Your task to perform on an android device: open sync settings in chrome Image 0: 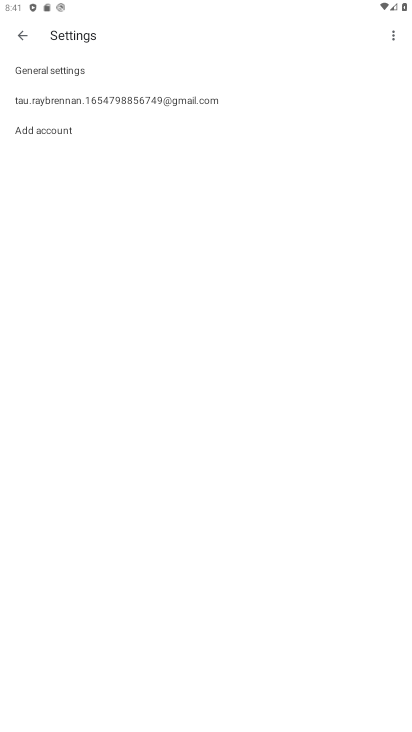
Step 0: press home button
Your task to perform on an android device: open sync settings in chrome Image 1: 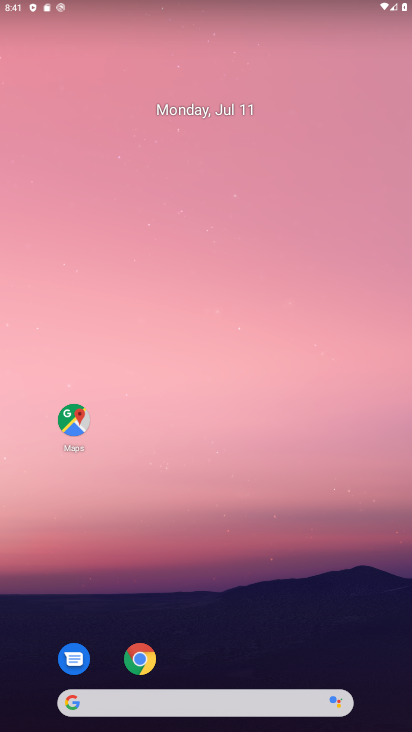
Step 1: drag from (203, 639) to (298, 128)
Your task to perform on an android device: open sync settings in chrome Image 2: 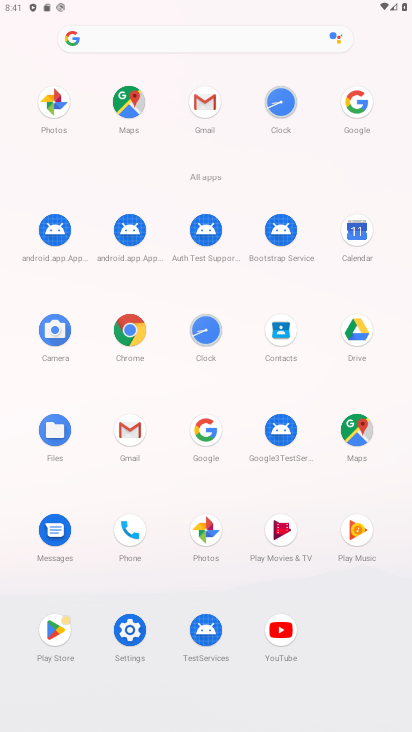
Step 2: click (131, 330)
Your task to perform on an android device: open sync settings in chrome Image 3: 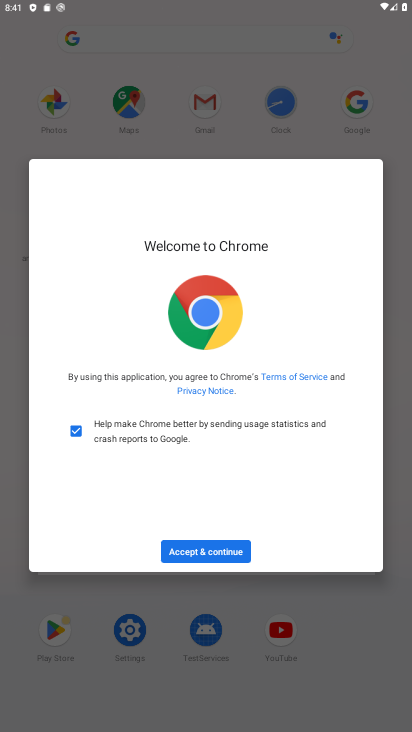
Step 3: click (200, 548)
Your task to perform on an android device: open sync settings in chrome Image 4: 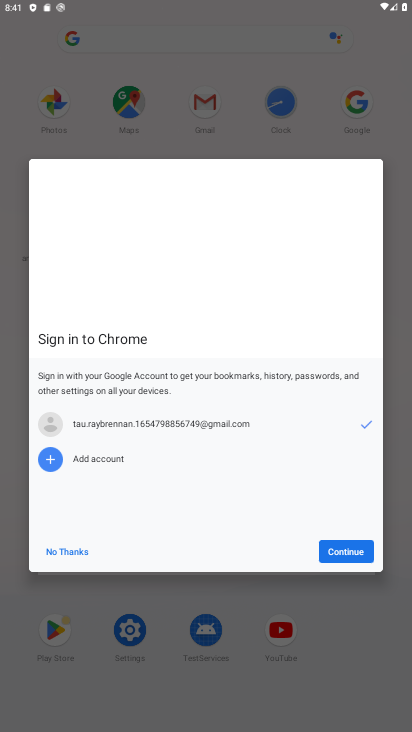
Step 4: click (339, 544)
Your task to perform on an android device: open sync settings in chrome Image 5: 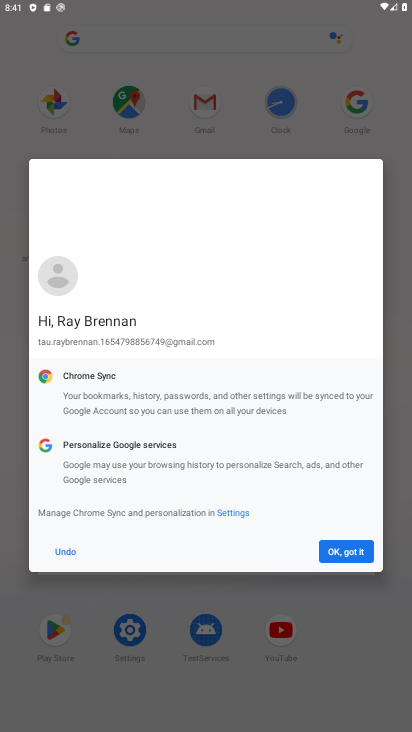
Step 5: click (346, 551)
Your task to perform on an android device: open sync settings in chrome Image 6: 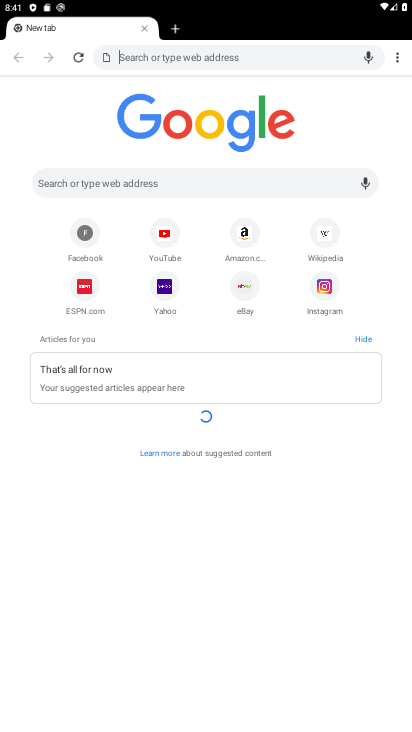
Step 6: drag from (403, 59) to (314, 258)
Your task to perform on an android device: open sync settings in chrome Image 7: 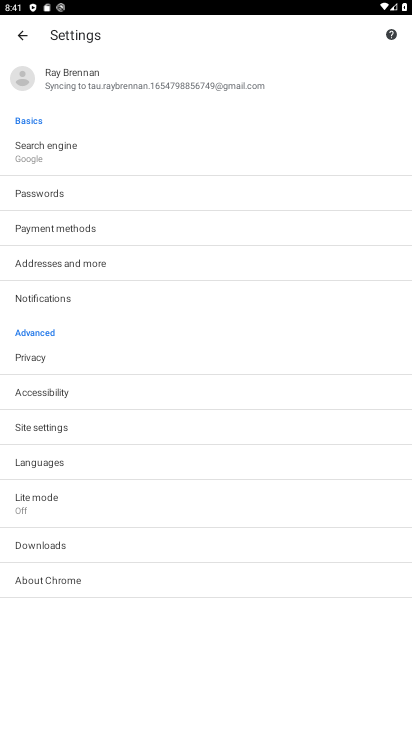
Step 7: click (141, 84)
Your task to perform on an android device: open sync settings in chrome Image 8: 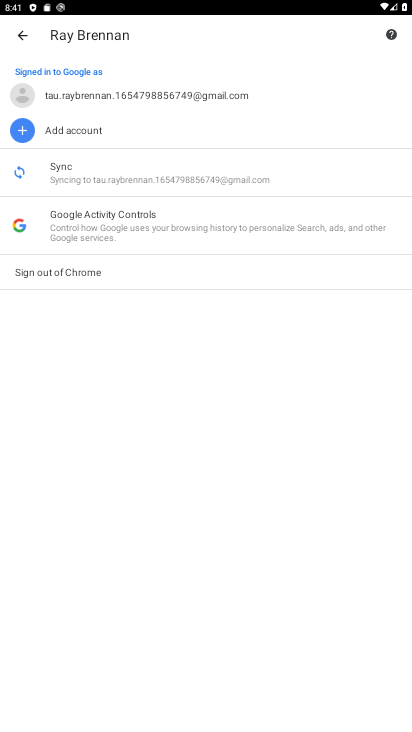
Step 8: click (113, 171)
Your task to perform on an android device: open sync settings in chrome Image 9: 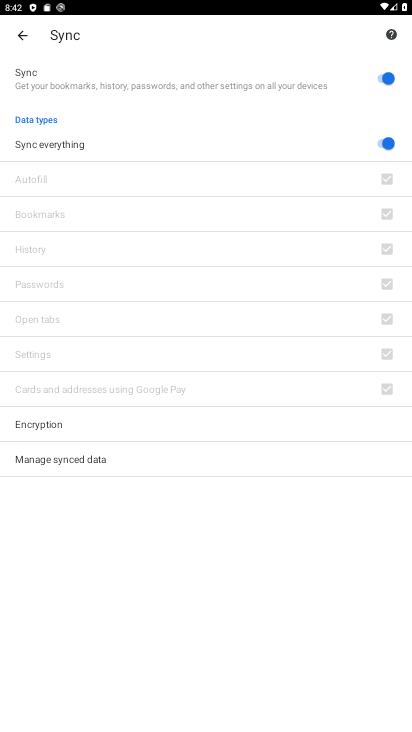
Step 9: task complete